Your task to perform on an android device: Go to wifi settings Image 0: 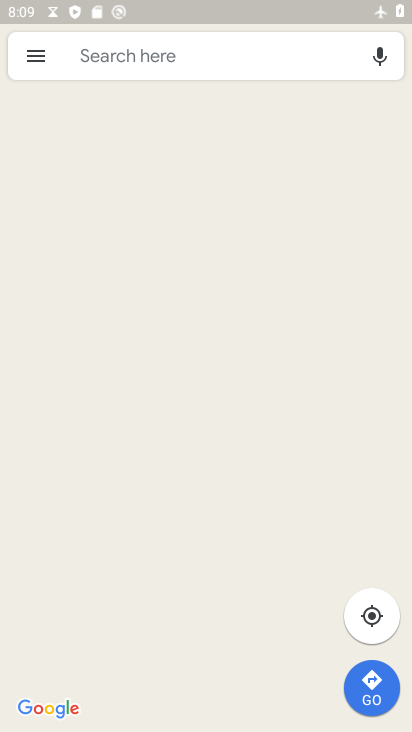
Step 0: press home button
Your task to perform on an android device: Go to wifi settings Image 1: 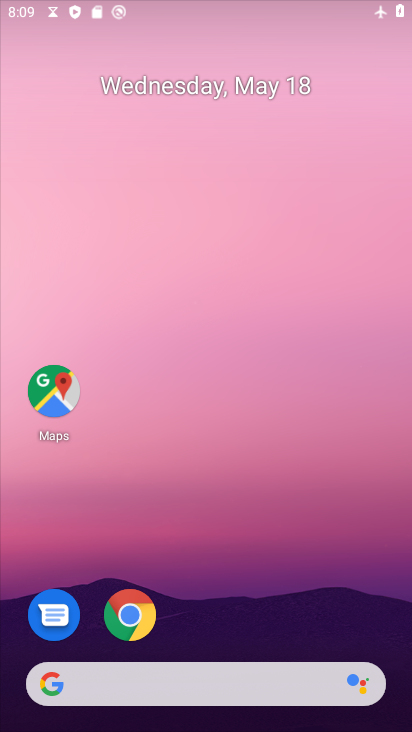
Step 1: drag from (249, 502) to (281, 129)
Your task to perform on an android device: Go to wifi settings Image 2: 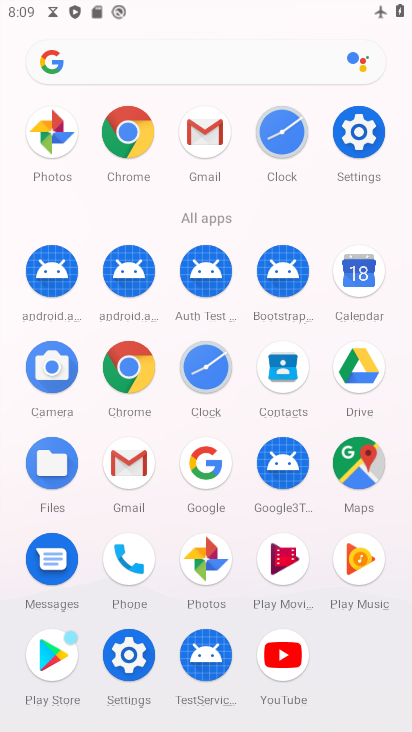
Step 2: click (364, 133)
Your task to perform on an android device: Go to wifi settings Image 3: 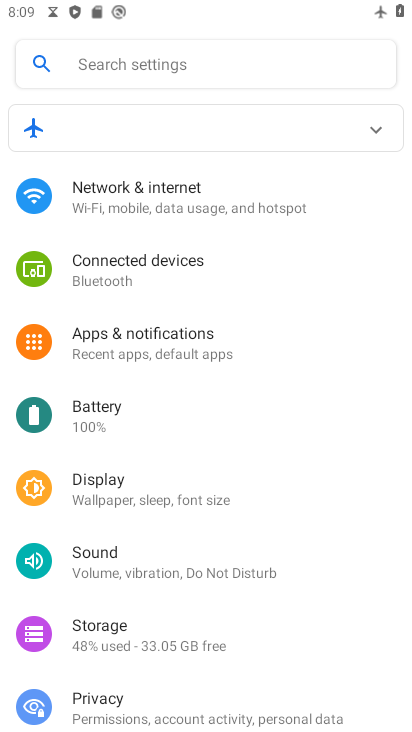
Step 3: click (173, 184)
Your task to perform on an android device: Go to wifi settings Image 4: 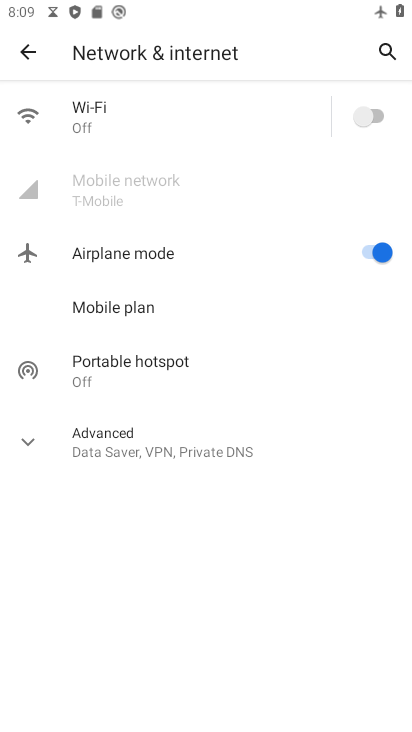
Step 4: click (103, 105)
Your task to perform on an android device: Go to wifi settings Image 5: 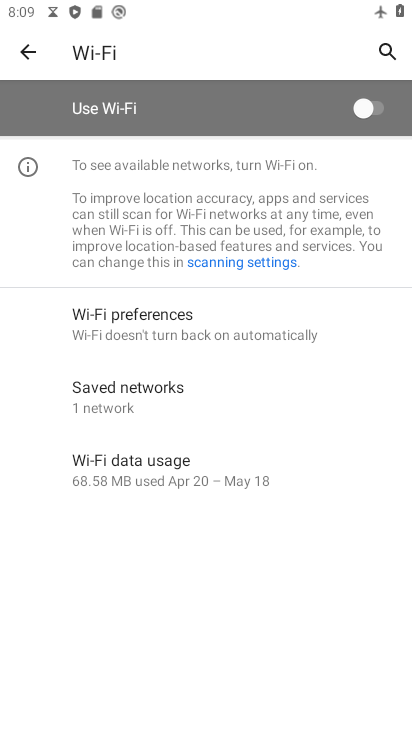
Step 5: task complete